Your task to perform on an android device: find which apps use the phone's location Image 0: 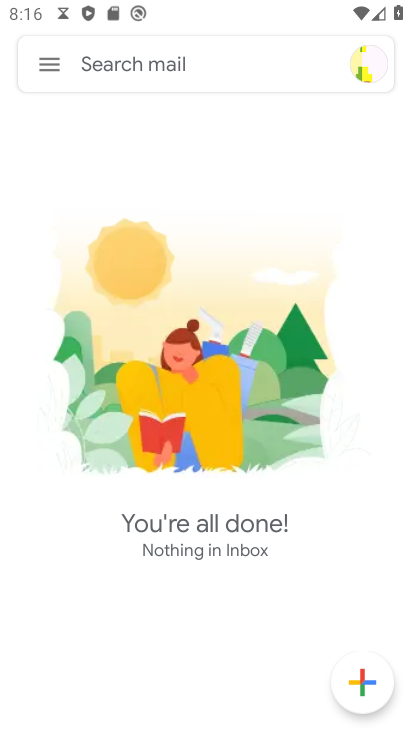
Step 0: press home button
Your task to perform on an android device: find which apps use the phone's location Image 1: 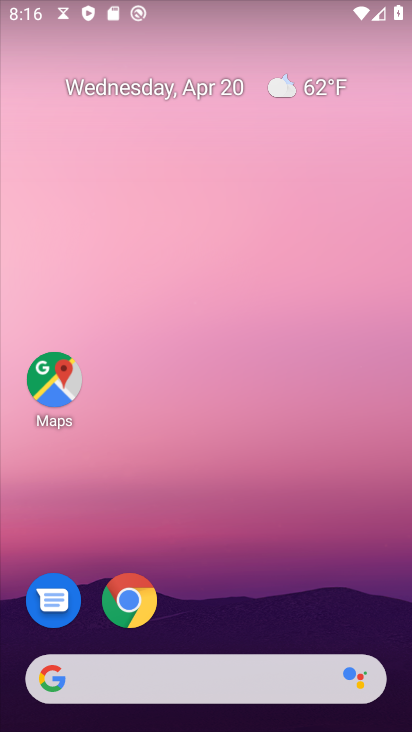
Step 1: drag from (206, 727) to (203, 190)
Your task to perform on an android device: find which apps use the phone's location Image 2: 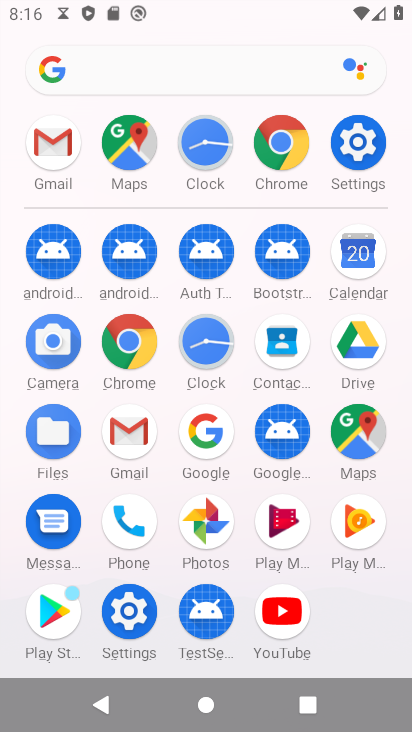
Step 2: click (360, 147)
Your task to perform on an android device: find which apps use the phone's location Image 3: 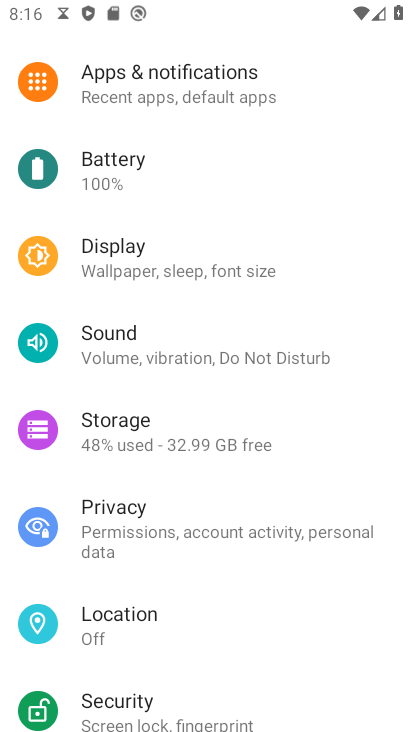
Step 3: click (128, 613)
Your task to perform on an android device: find which apps use the phone's location Image 4: 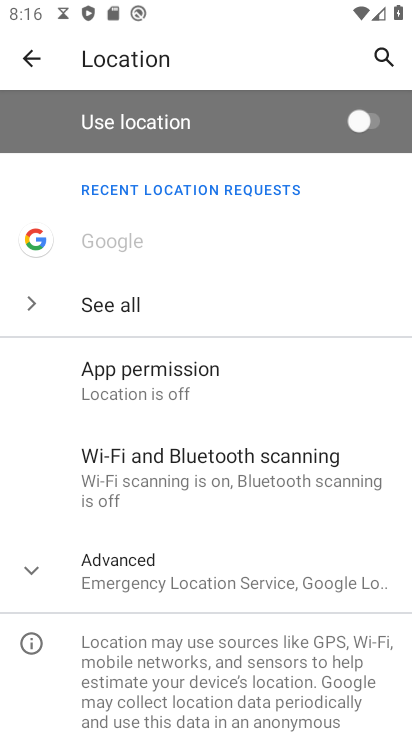
Step 4: click (145, 380)
Your task to perform on an android device: find which apps use the phone's location Image 5: 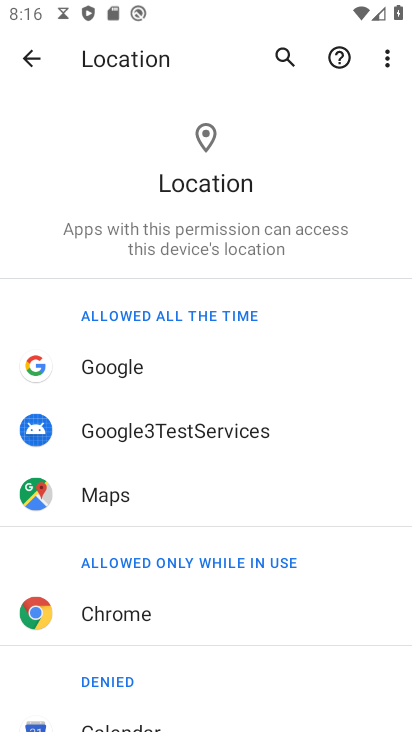
Step 5: task complete